Your task to perform on an android device: Show me popular videos on Youtube Image 0: 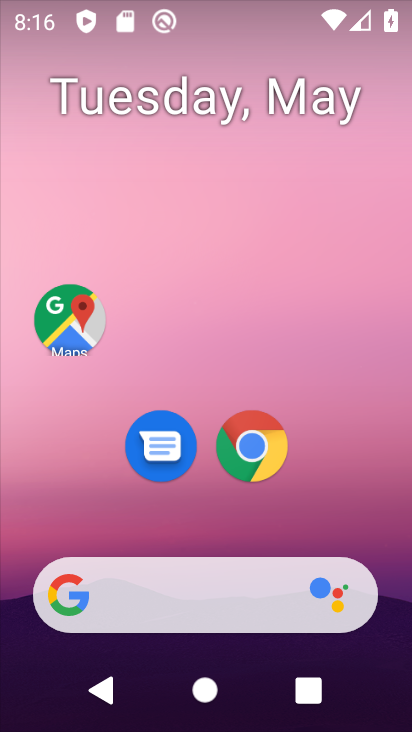
Step 0: drag from (390, 566) to (404, 210)
Your task to perform on an android device: Show me popular videos on Youtube Image 1: 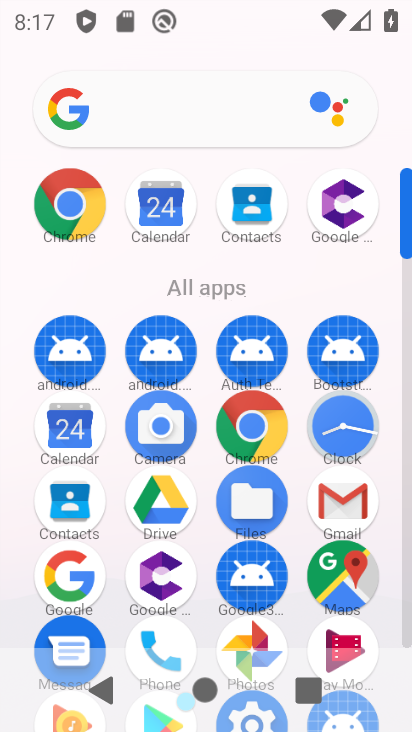
Step 1: drag from (384, 628) to (390, 332)
Your task to perform on an android device: Show me popular videos on Youtube Image 2: 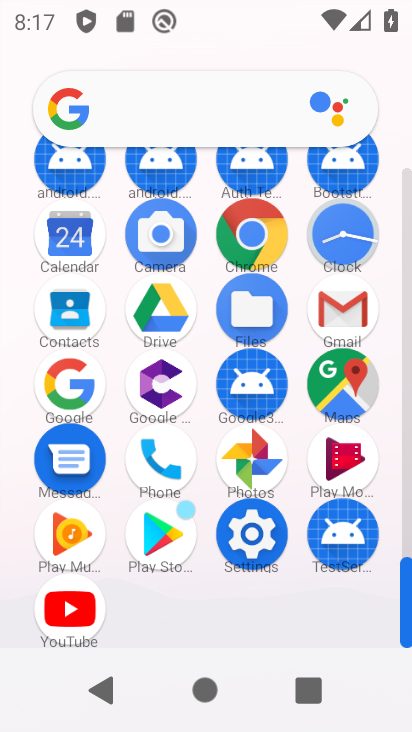
Step 2: click (82, 622)
Your task to perform on an android device: Show me popular videos on Youtube Image 3: 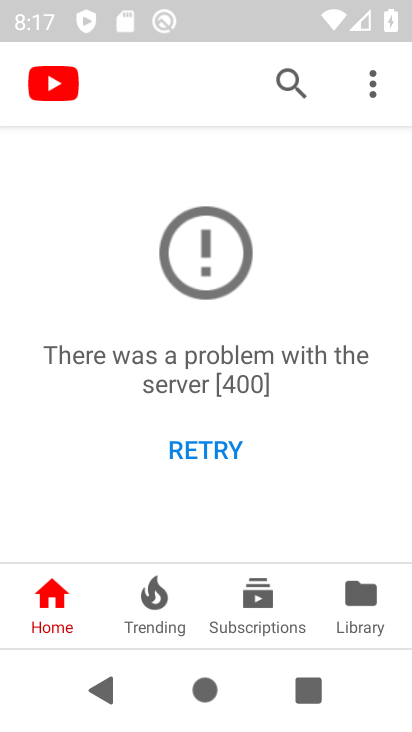
Step 3: task complete